Your task to perform on an android device: Open Chrome and go to settings Image 0: 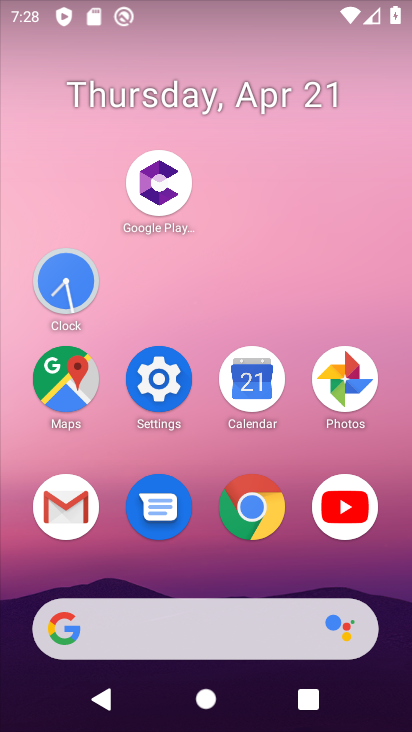
Step 0: click (255, 506)
Your task to perform on an android device: Open Chrome and go to settings Image 1: 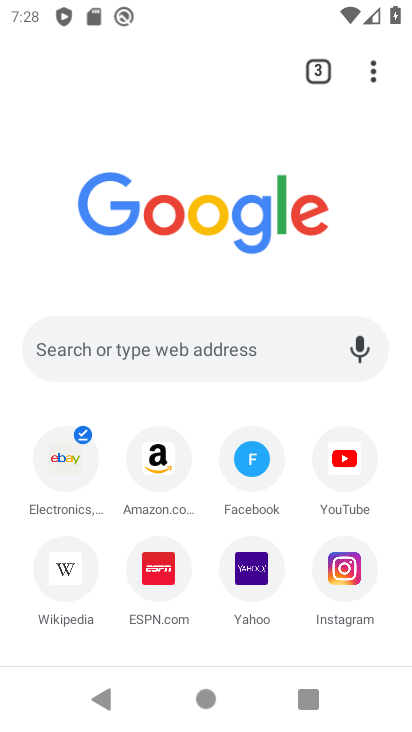
Step 1: click (368, 67)
Your task to perform on an android device: Open Chrome and go to settings Image 2: 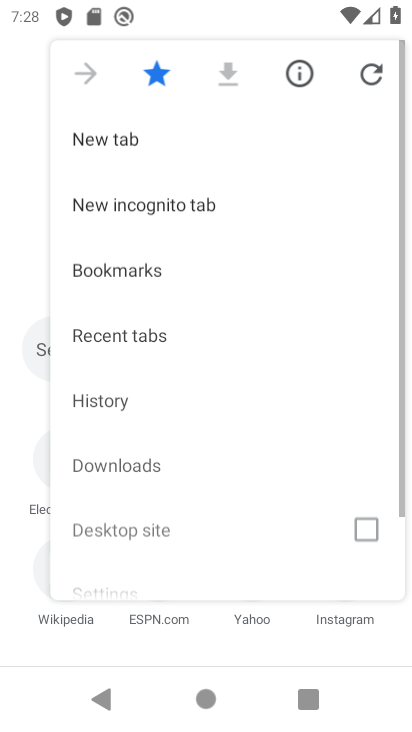
Step 2: click (373, 67)
Your task to perform on an android device: Open Chrome and go to settings Image 3: 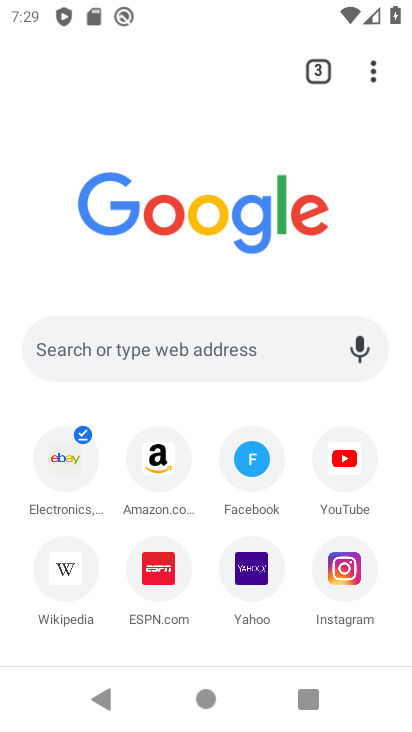
Step 3: click (369, 71)
Your task to perform on an android device: Open Chrome and go to settings Image 4: 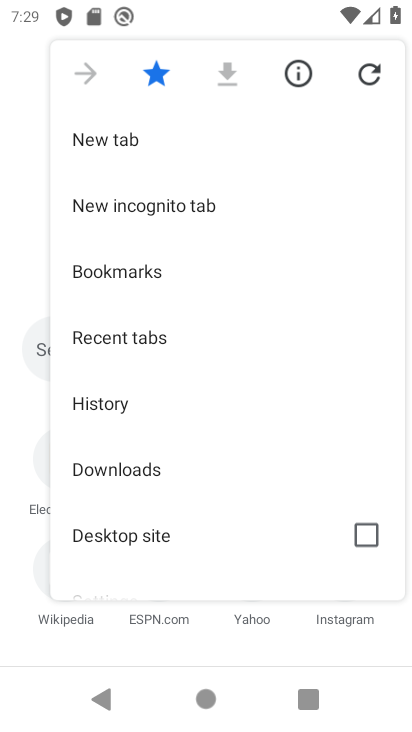
Step 4: drag from (282, 378) to (286, 164)
Your task to perform on an android device: Open Chrome and go to settings Image 5: 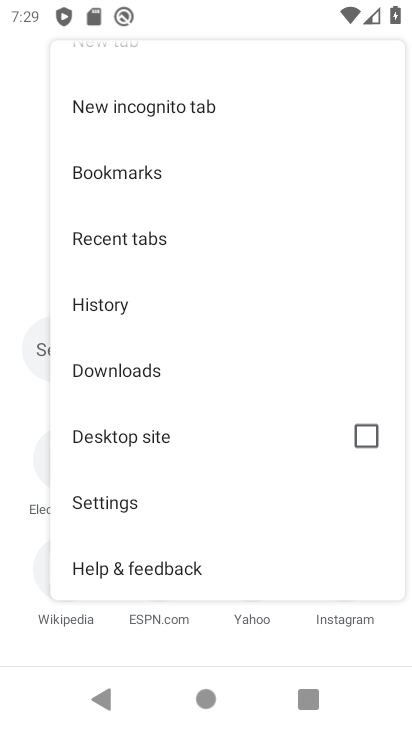
Step 5: click (101, 503)
Your task to perform on an android device: Open Chrome and go to settings Image 6: 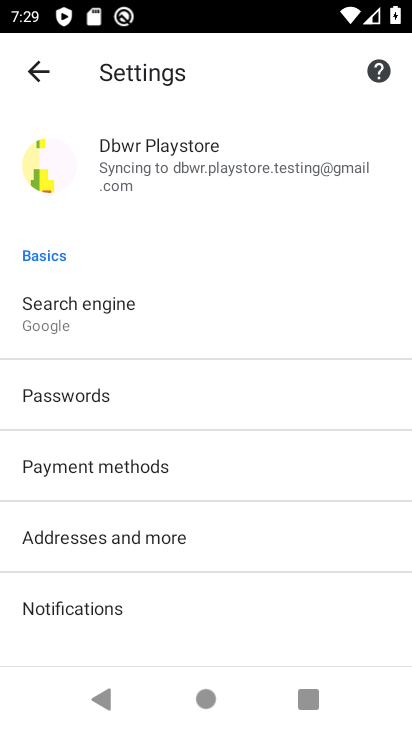
Step 6: task complete